Your task to perform on an android device: Do I have any events today? Image 0: 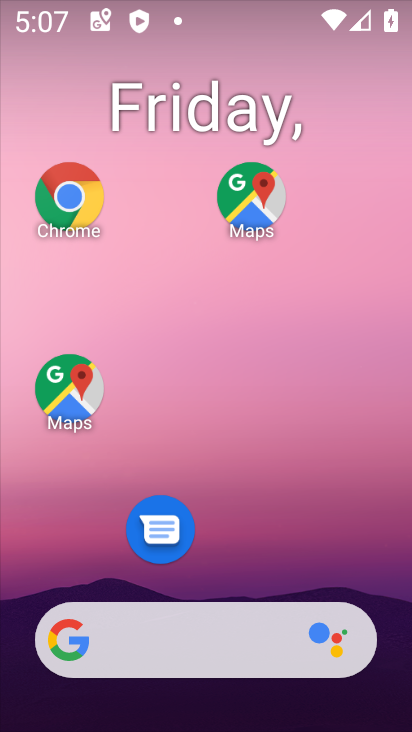
Step 0: drag from (271, 583) to (343, 106)
Your task to perform on an android device: Do I have any events today? Image 1: 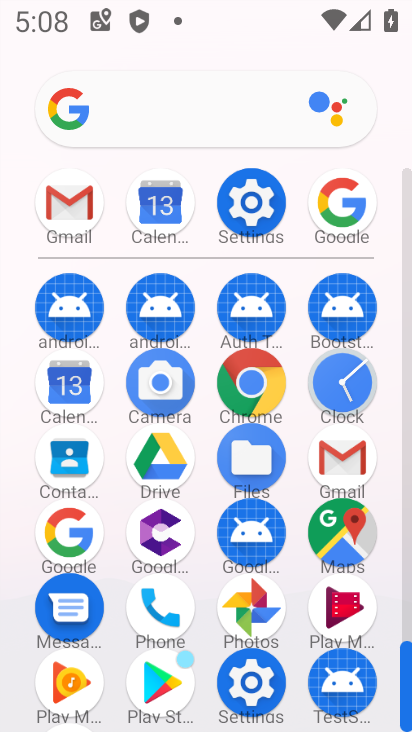
Step 1: click (78, 405)
Your task to perform on an android device: Do I have any events today? Image 2: 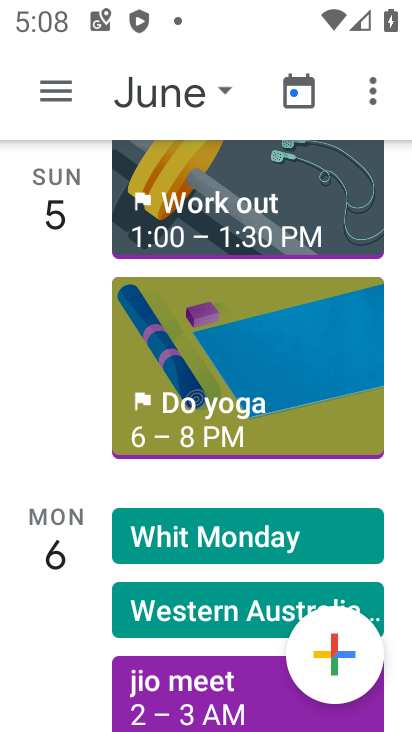
Step 2: click (175, 85)
Your task to perform on an android device: Do I have any events today? Image 3: 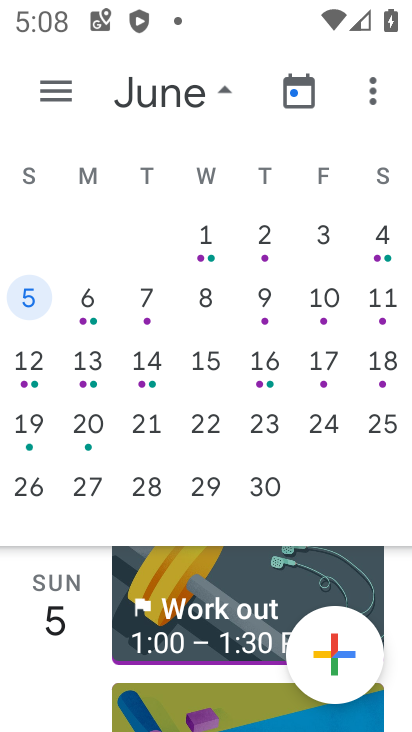
Step 3: click (50, 94)
Your task to perform on an android device: Do I have any events today? Image 4: 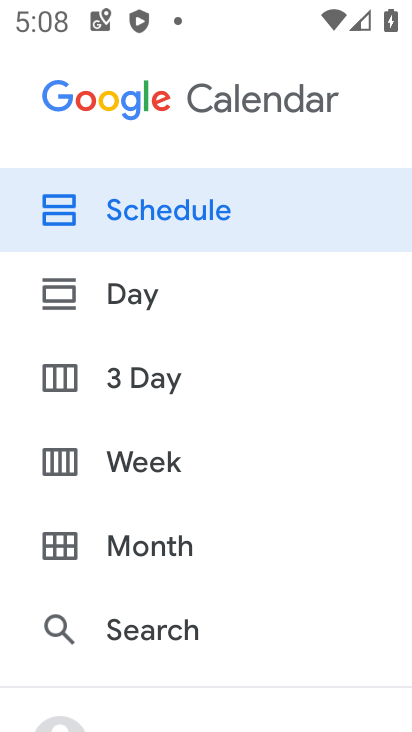
Step 4: click (183, 224)
Your task to perform on an android device: Do I have any events today? Image 5: 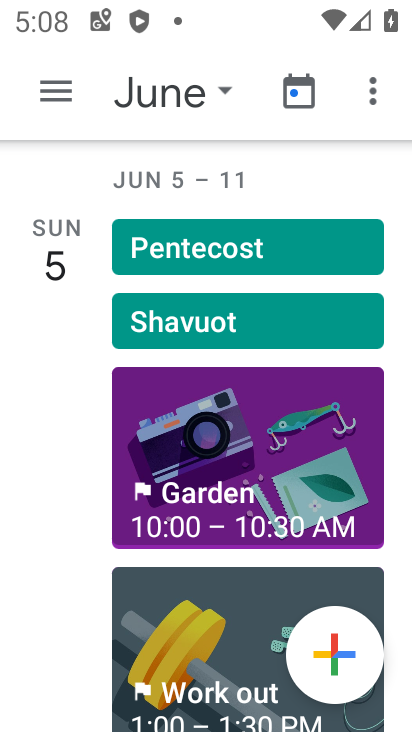
Step 5: click (151, 102)
Your task to perform on an android device: Do I have any events today? Image 6: 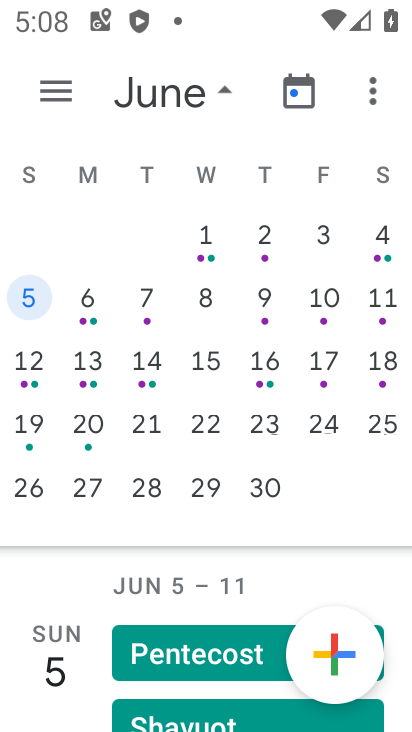
Step 6: click (158, 102)
Your task to perform on an android device: Do I have any events today? Image 7: 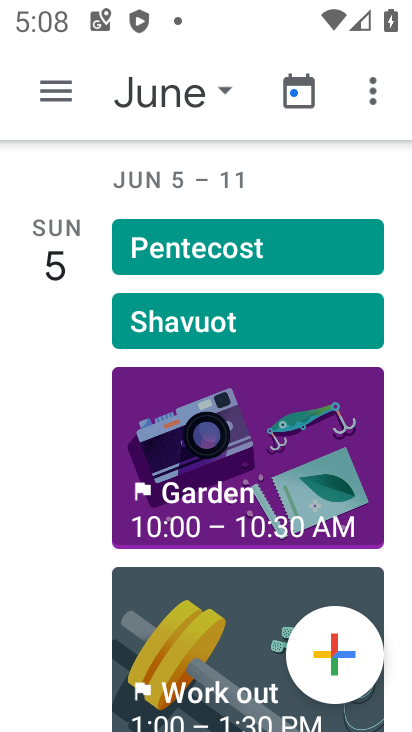
Step 7: click (178, 101)
Your task to perform on an android device: Do I have any events today? Image 8: 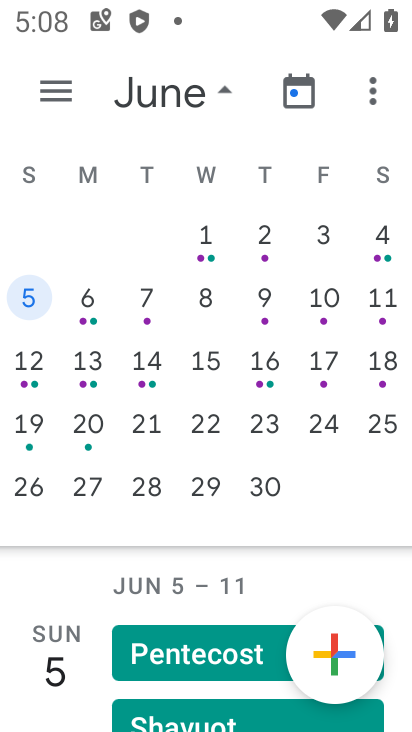
Step 8: drag from (51, 363) to (411, 358)
Your task to perform on an android device: Do I have any events today? Image 9: 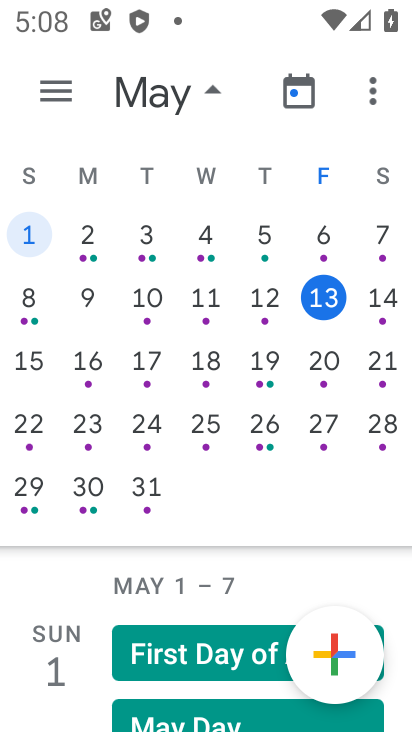
Step 9: click (318, 300)
Your task to perform on an android device: Do I have any events today? Image 10: 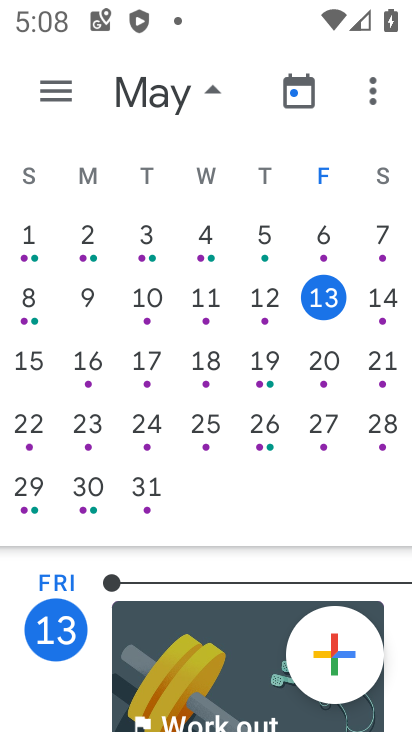
Step 10: task complete